Your task to perform on an android device: Is it going to rain this weekend? Image 0: 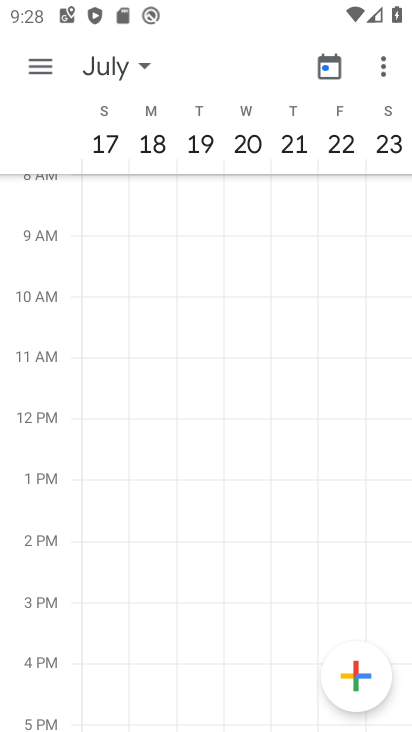
Step 0: press home button
Your task to perform on an android device: Is it going to rain this weekend? Image 1: 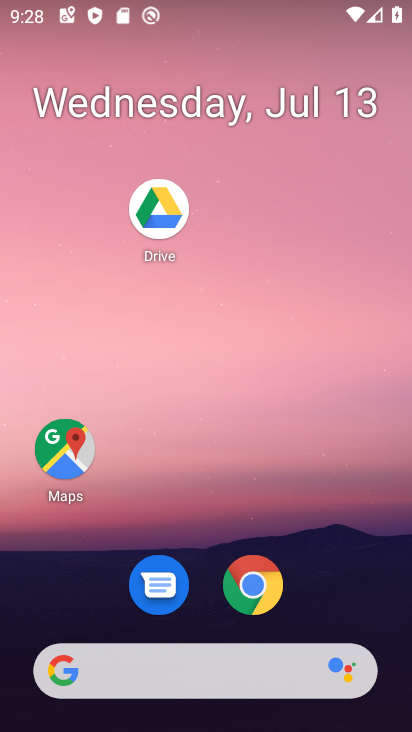
Step 1: click (201, 675)
Your task to perform on an android device: Is it going to rain this weekend? Image 2: 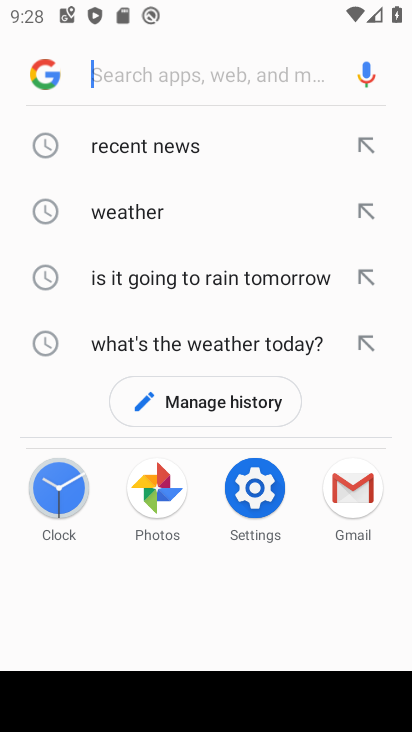
Step 2: click (139, 218)
Your task to perform on an android device: Is it going to rain this weekend? Image 3: 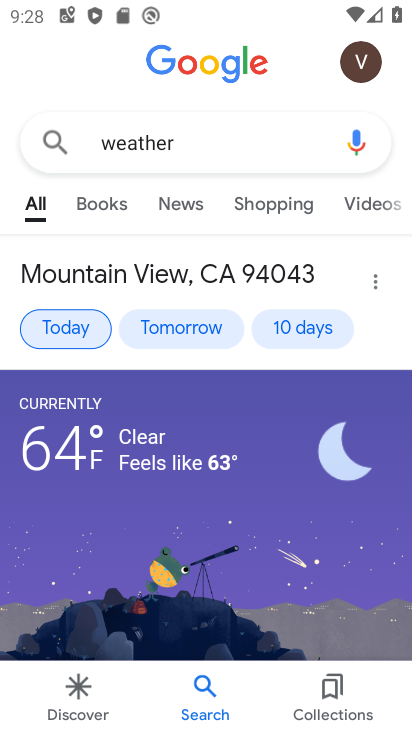
Step 3: click (302, 324)
Your task to perform on an android device: Is it going to rain this weekend? Image 4: 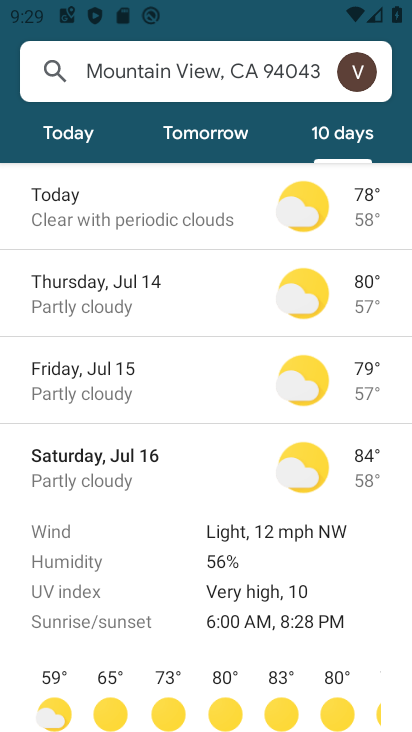
Step 4: task complete